Your task to perform on an android device: Open maps Image 0: 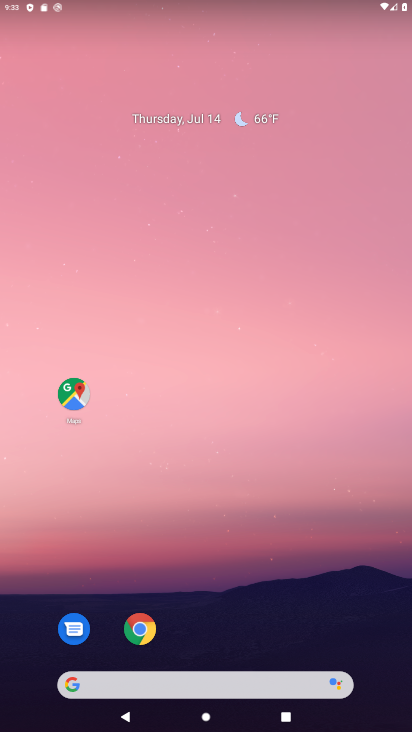
Step 0: click (73, 379)
Your task to perform on an android device: Open maps Image 1: 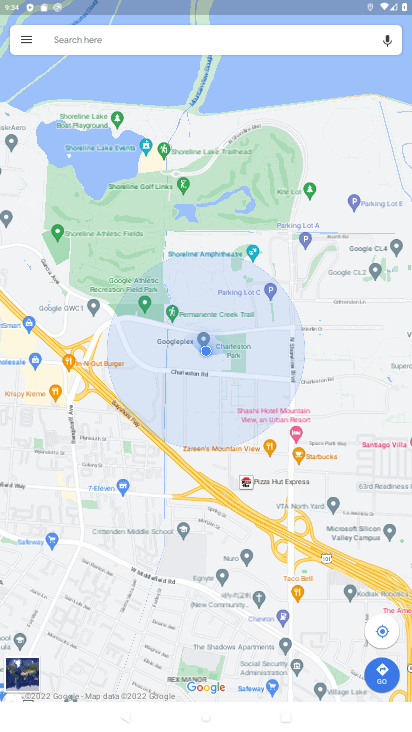
Step 1: task complete